Your task to perform on an android device: install app "Google Home" Image 0: 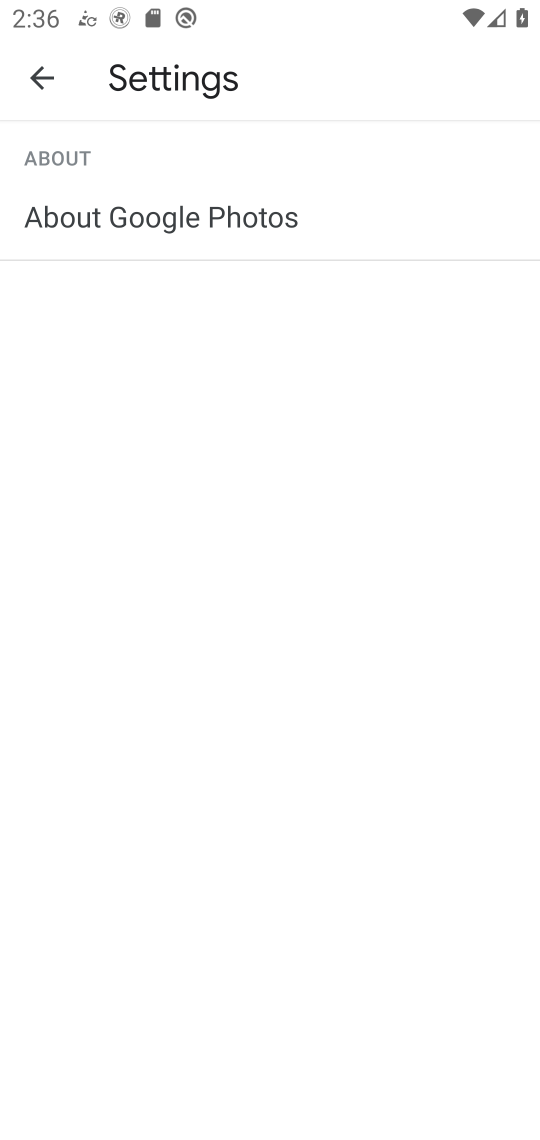
Step 0: press home button
Your task to perform on an android device: install app "Google Home" Image 1: 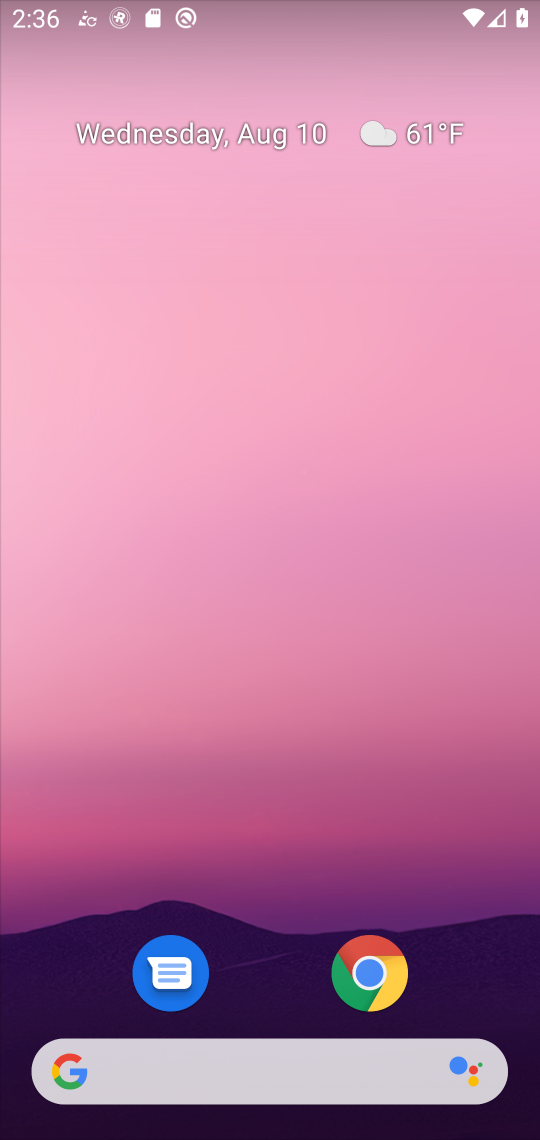
Step 1: drag from (228, 1010) to (267, 205)
Your task to perform on an android device: install app "Google Home" Image 2: 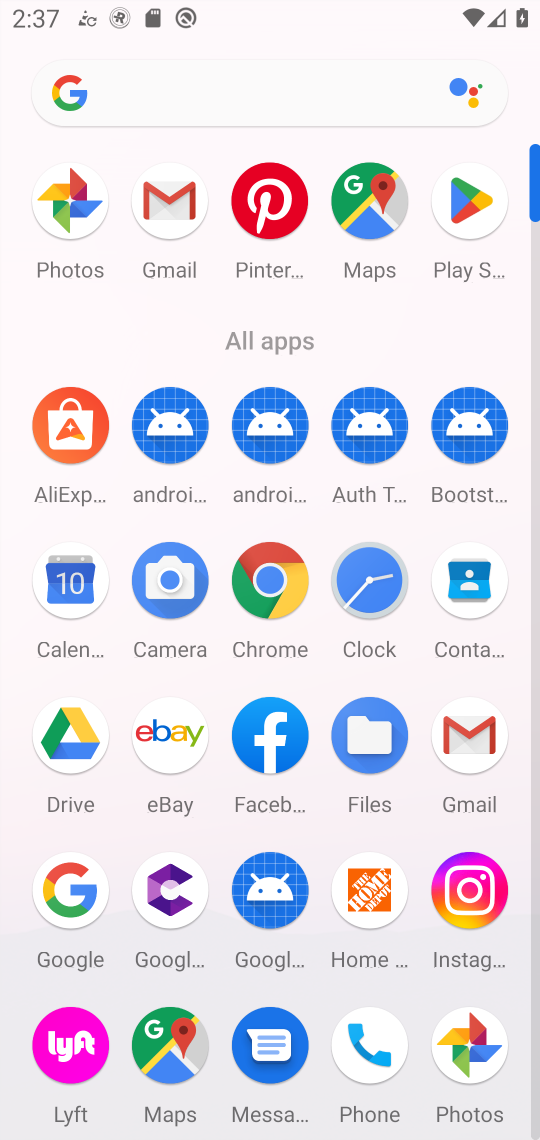
Step 2: click (466, 211)
Your task to perform on an android device: install app "Google Home" Image 3: 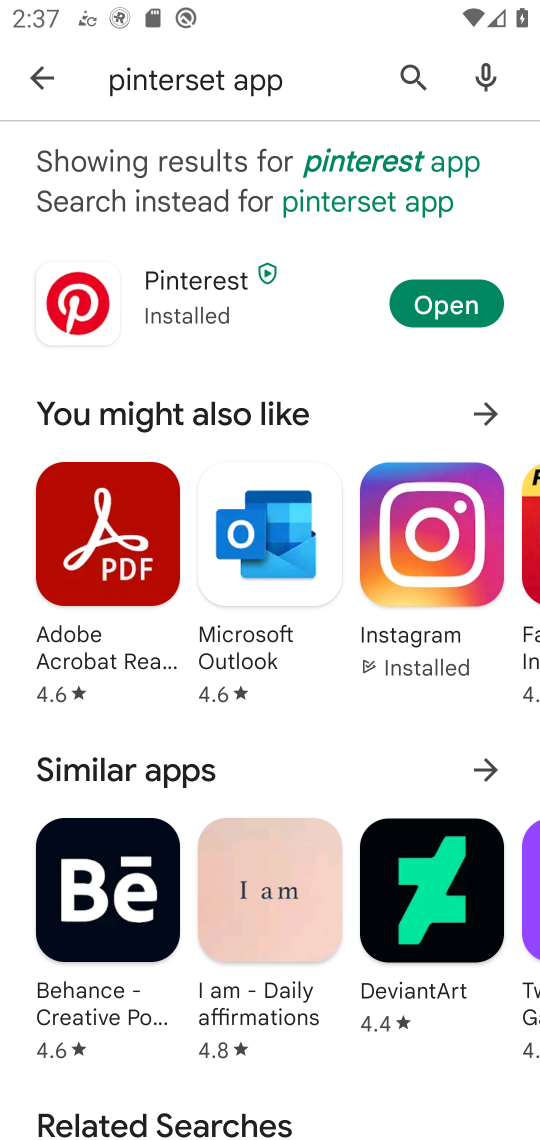
Step 3: click (43, 81)
Your task to perform on an android device: install app "Google Home" Image 4: 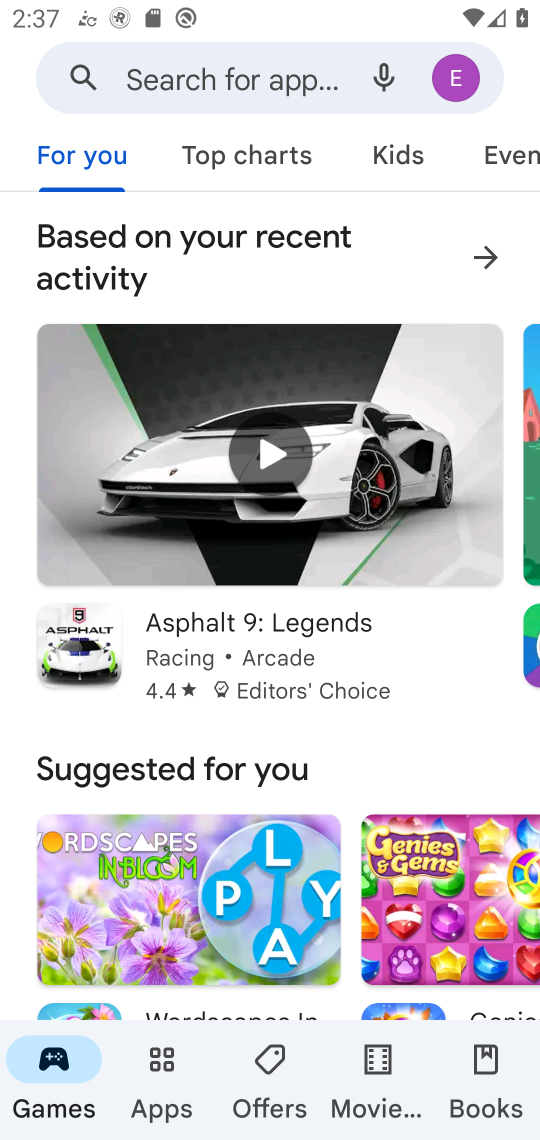
Step 4: click (315, 63)
Your task to perform on an android device: install app "Google Home" Image 5: 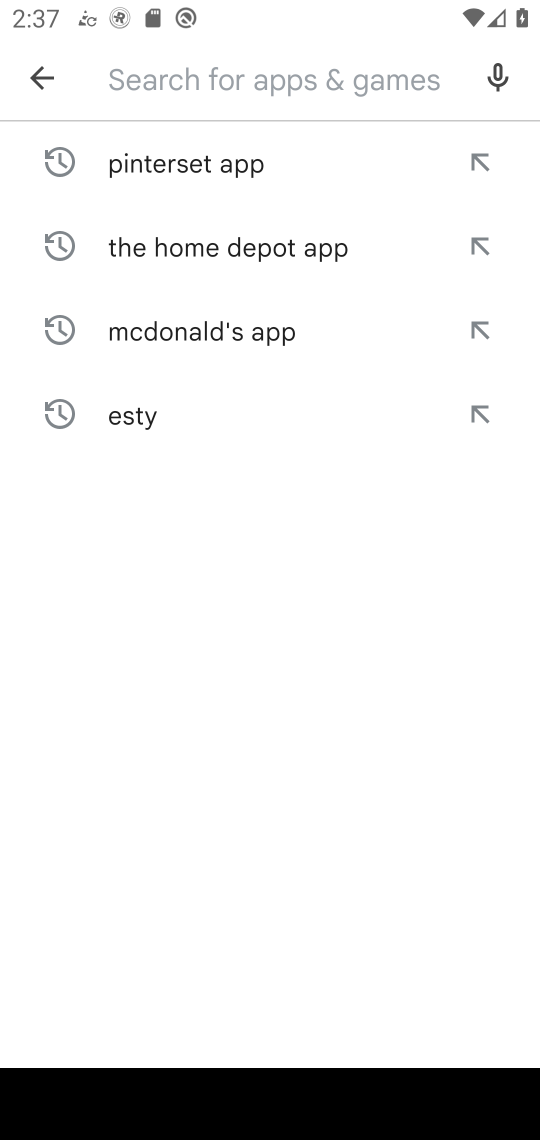
Step 5: type "Google Home "
Your task to perform on an android device: install app "Google Home" Image 6: 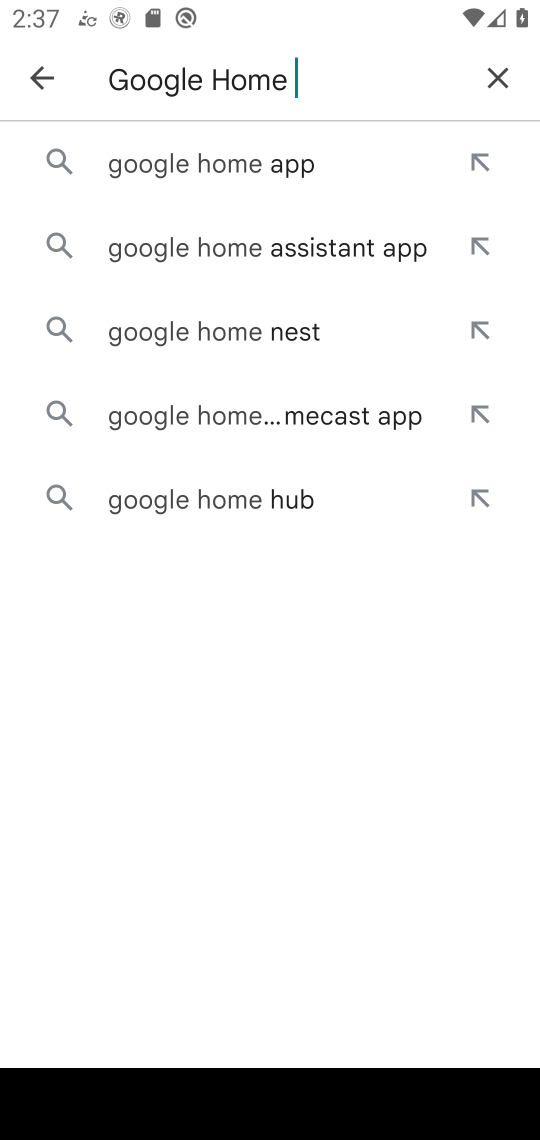
Step 6: click (185, 166)
Your task to perform on an android device: install app "Google Home" Image 7: 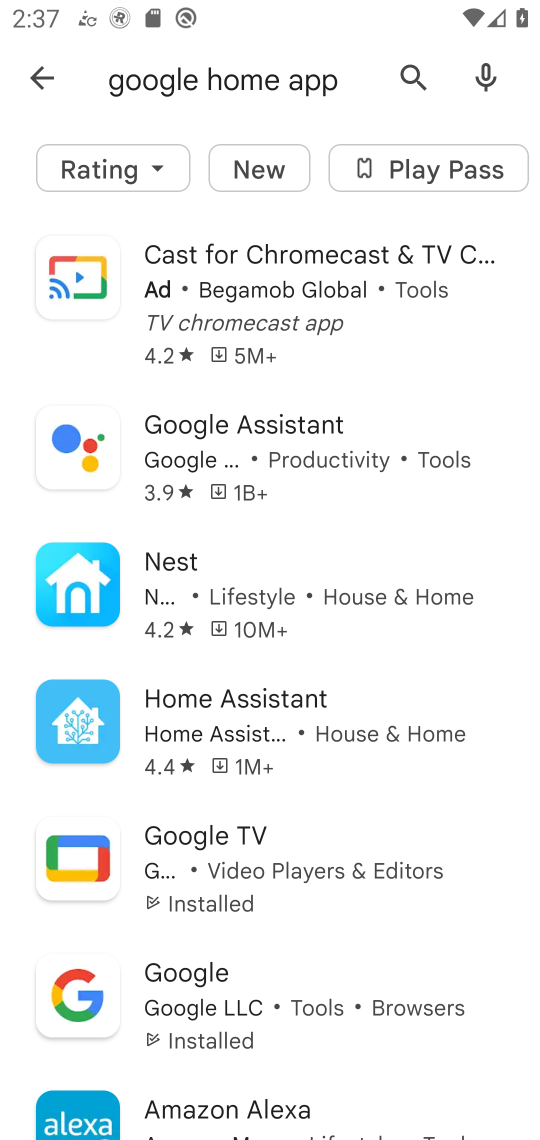
Step 7: click (257, 967)
Your task to perform on an android device: install app "Google Home" Image 8: 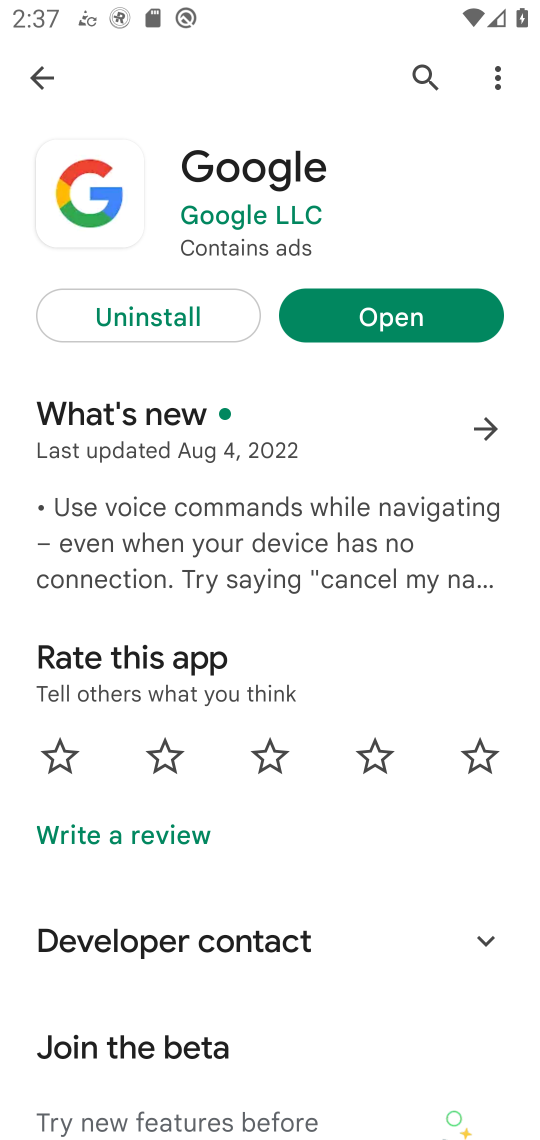
Step 8: click (386, 320)
Your task to perform on an android device: install app "Google Home" Image 9: 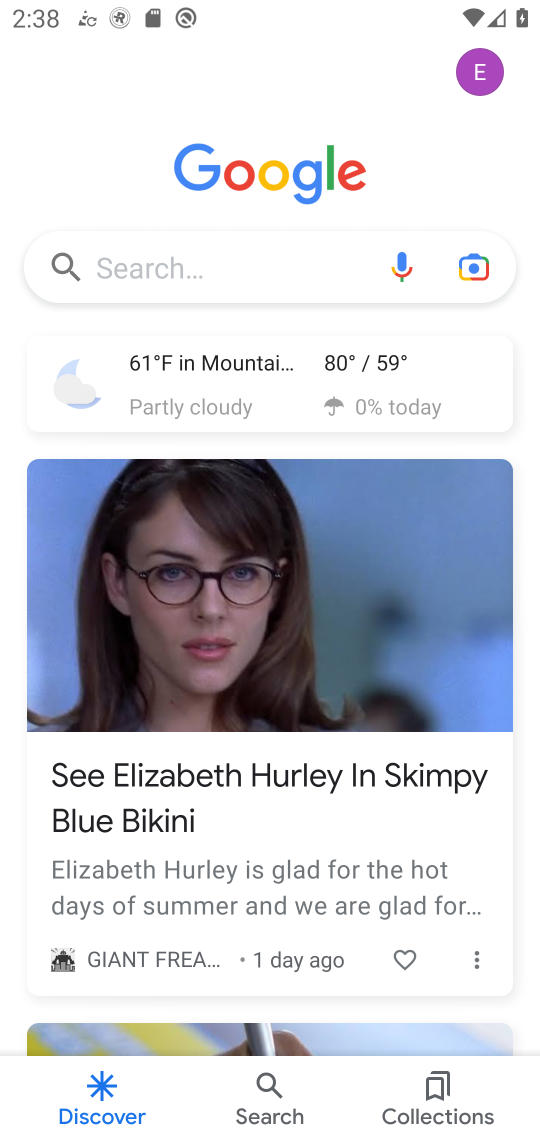
Step 9: task complete